Your task to perform on an android device: find photos in the google photos app Image 0: 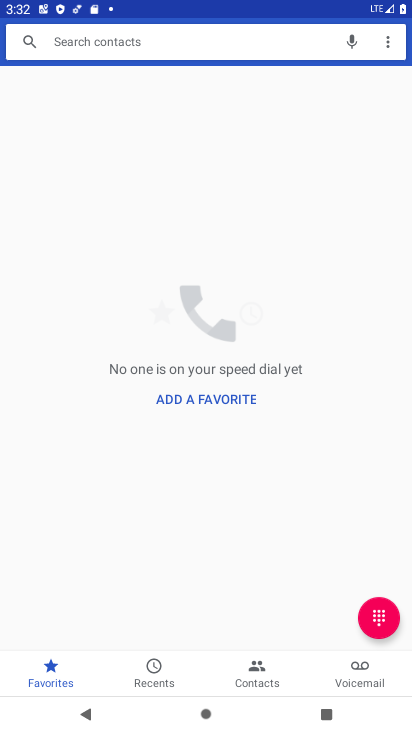
Step 0: press home button
Your task to perform on an android device: find photos in the google photos app Image 1: 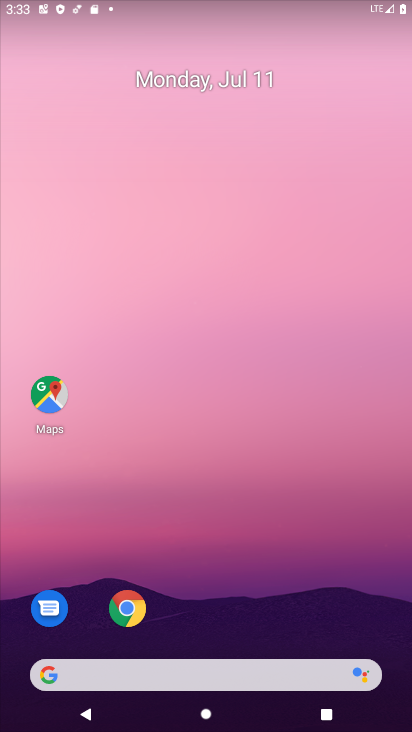
Step 1: drag from (233, 615) to (225, 62)
Your task to perform on an android device: find photos in the google photos app Image 2: 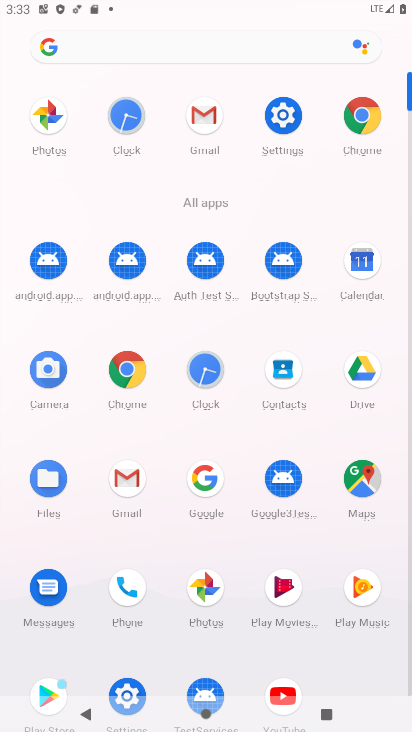
Step 2: click (35, 125)
Your task to perform on an android device: find photos in the google photos app Image 3: 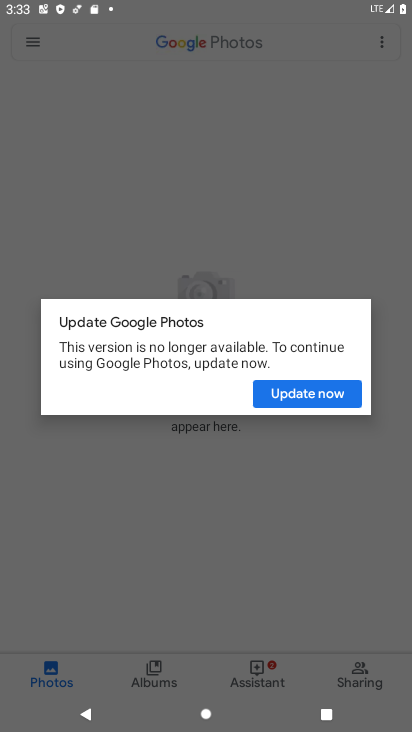
Step 3: click (306, 393)
Your task to perform on an android device: find photos in the google photos app Image 4: 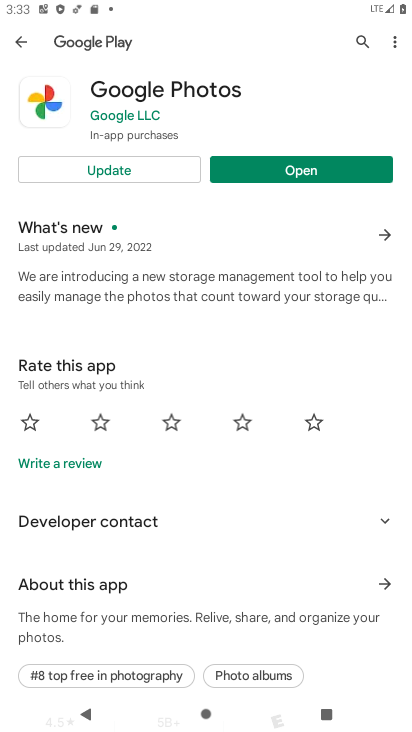
Step 4: click (319, 175)
Your task to perform on an android device: find photos in the google photos app Image 5: 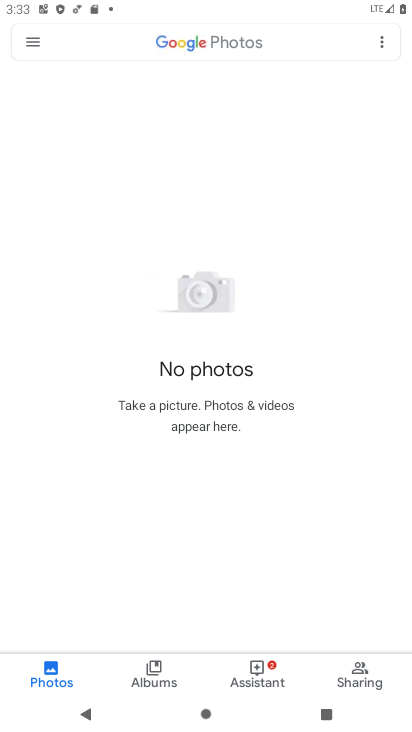
Step 5: task complete